Your task to perform on an android device: change your default location settings in chrome Image 0: 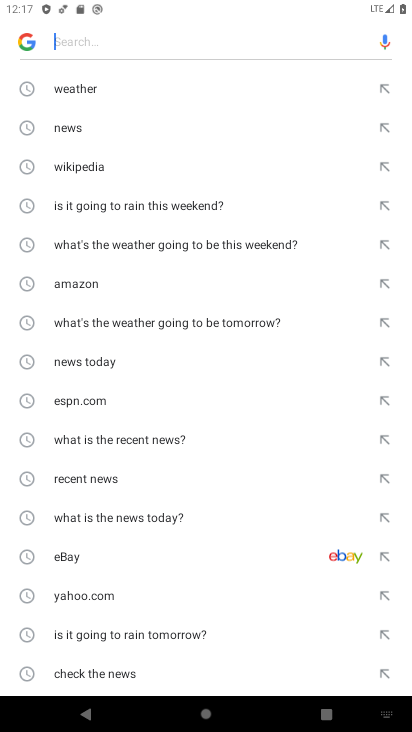
Step 0: press home button
Your task to perform on an android device: change your default location settings in chrome Image 1: 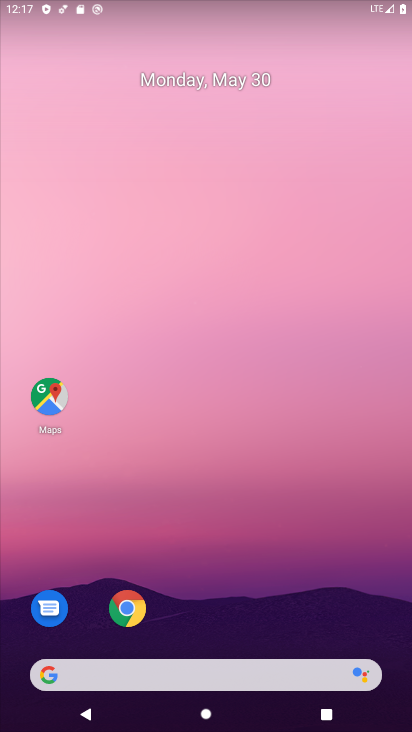
Step 1: click (150, 581)
Your task to perform on an android device: change your default location settings in chrome Image 2: 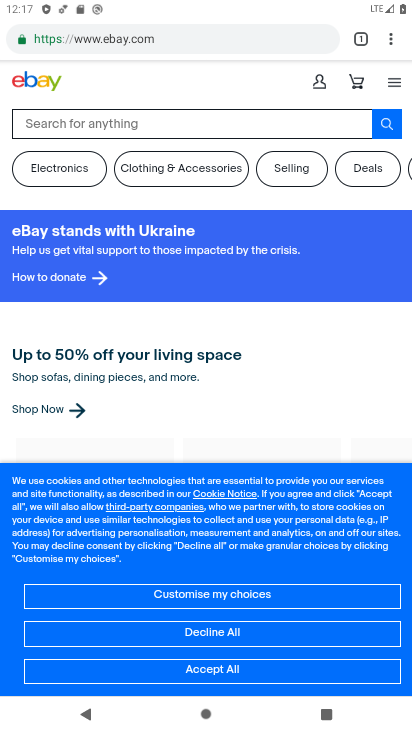
Step 2: click (391, 29)
Your task to perform on an android device: change your default location settings in chrome Image 3: 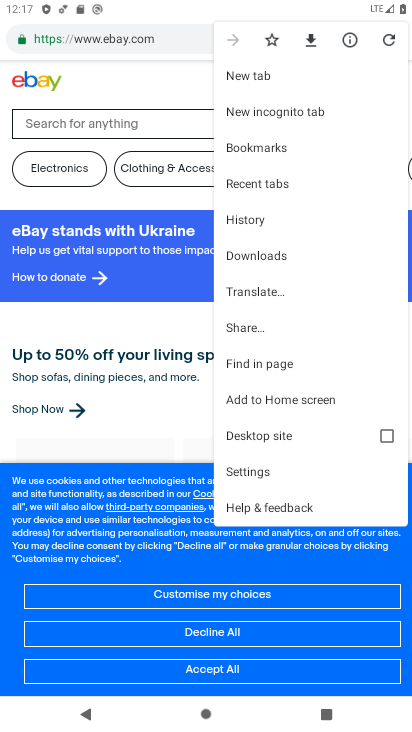
Step 3: click (271, 477)
Your task to perform on an android device: change your default location settings in chrome Image 4: 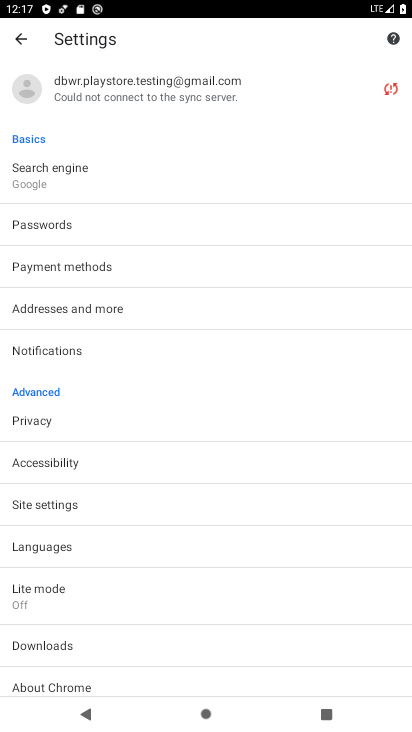
Step 4: click (69, 502)
Your task to perform on an android device: change your default location settings in chrome Image 5: 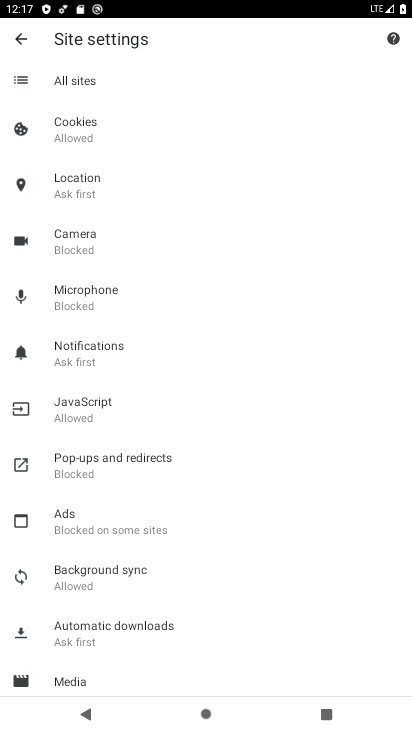
Step 5: click (96, 186)
Your task to perform on an android device: change your default location settings in chrome Image 6: 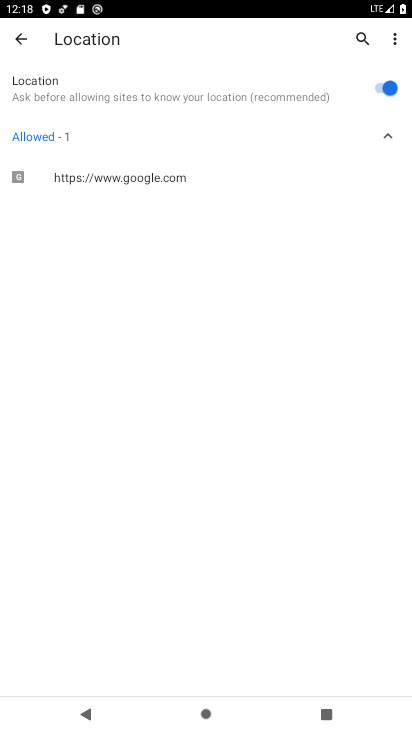
Step 6: click (364, 93)
Your task to perform on an android device: change your default location settings in chrome Image 7: 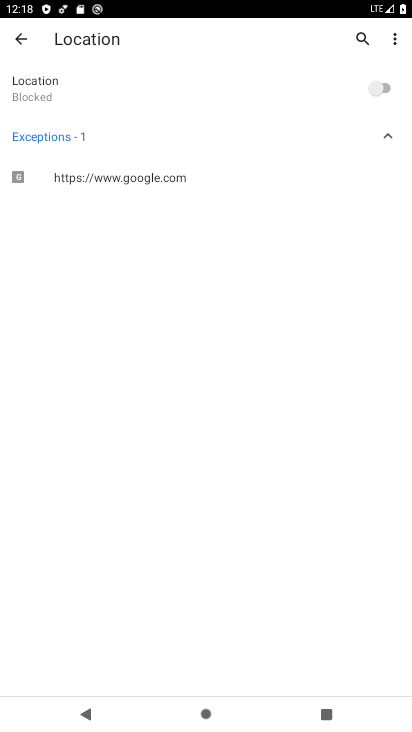
Step 7: task complete